Your task to perform on an android device: Open the Play Movies app and select the watchlist tab. Image 0: 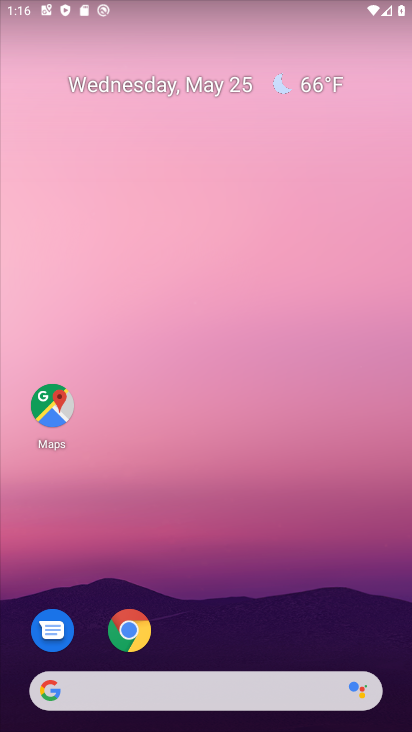
Step 0: press home button
Your task to perform on an android device: Open the Play Movies app and select the watchlist tab. Image 1: 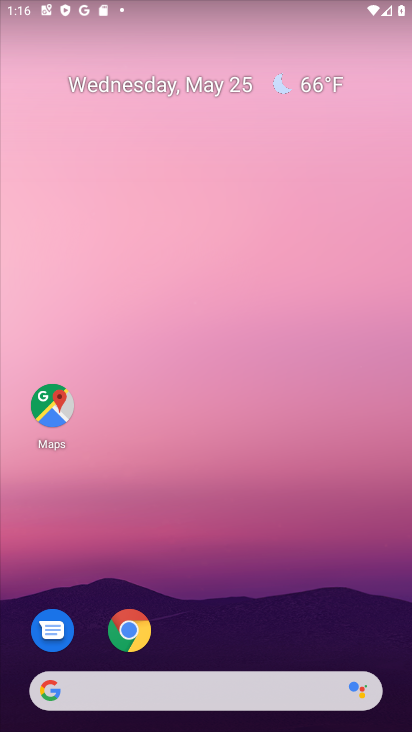
Step 1: drag from (220, 649) to (194, 134)
Your task to perform on an android device: Open the Play Movies app and select the watchlist tab. Image 2: 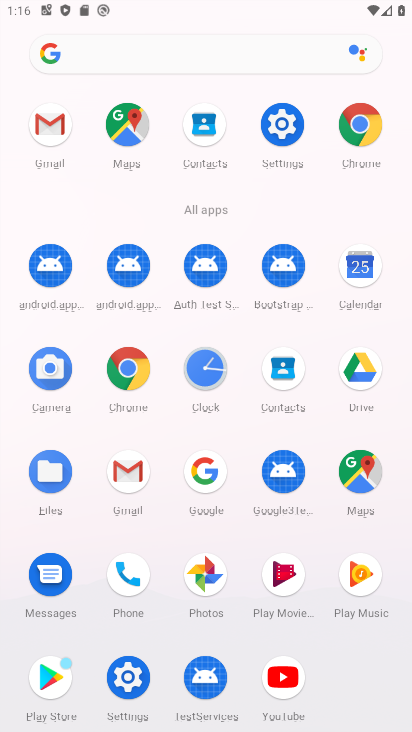
Step 2: click (285, 570)
Your task to perform on an android device: Open the Play Movies app and select the watchlist tab. Image 3: 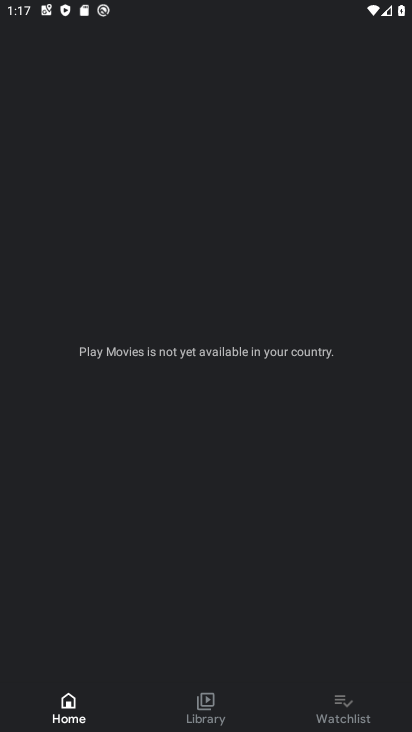
Step 3: click (344, 703)
Your task to perform on an android device: Open the Play Movies app and select the watchlist tab. Image 4: 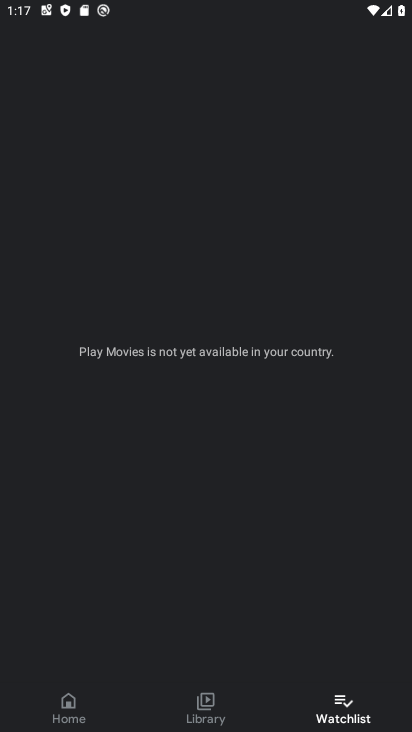
Step 4: task complete